Your task to perform on an android device: Search for flights from Tokyo to Seoul Image 0: 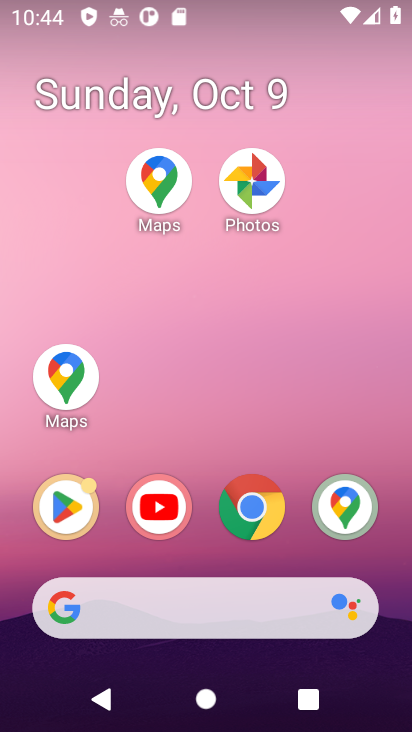
Step 0: drag from (302, 560) to (336, 71)
Your task to perform on an android device: Search for flights from Tokyo to Seoul Image 1: 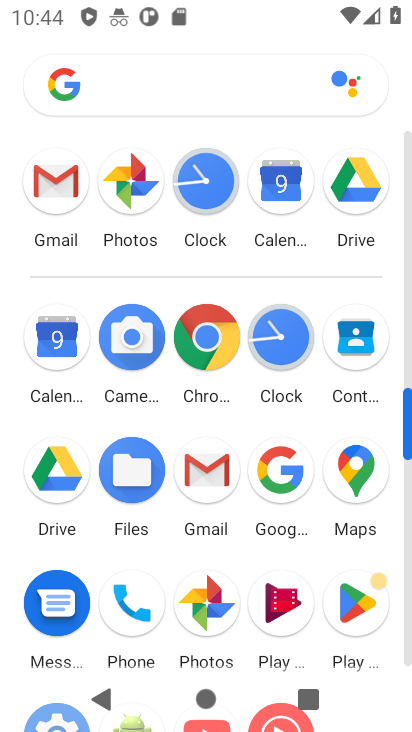
Step 1: click (209, 338)
Your task to perform on an android device: Search for flights from Tokyo to Seoul Image 2: 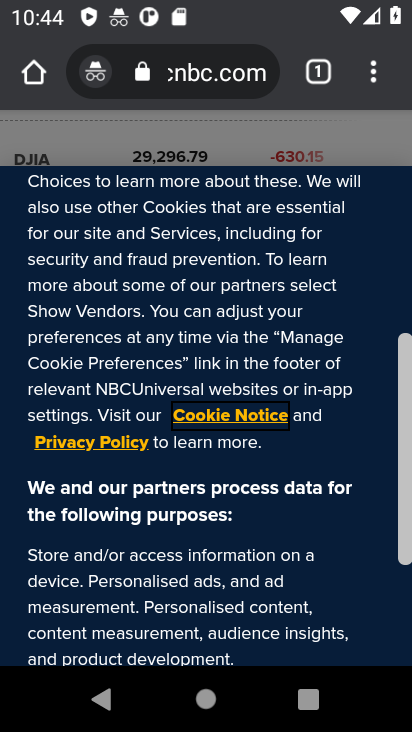
Step 2: click (182, 73)
Your task to perform on an android device: Search for flights from Tokyo to Seoul Image 3: 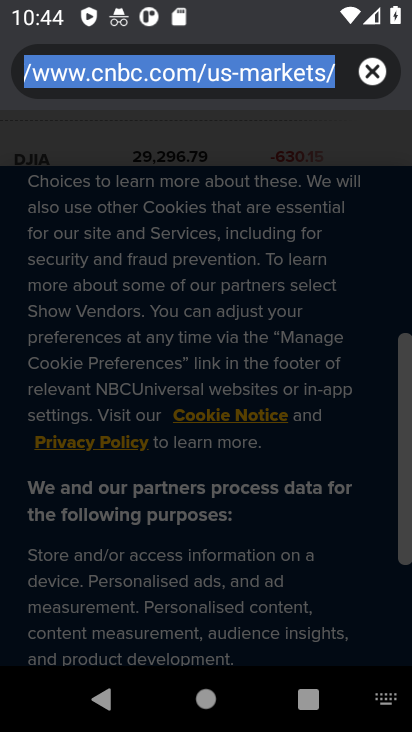
Step 3: type "Search for flights from Tokyo to Seoul"
Your task to perform on an android device: Search for flights from Tokyo to Seoul Image 4: 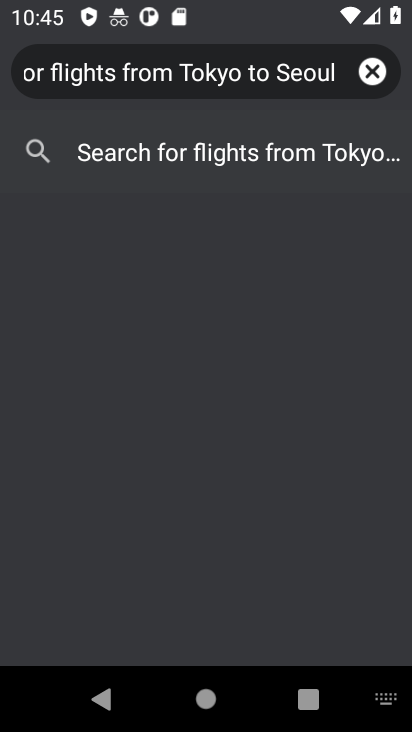
Step 4: press enter
Your task to perform on an android device: Search for flights from Tokyo to Seoul Image 5: 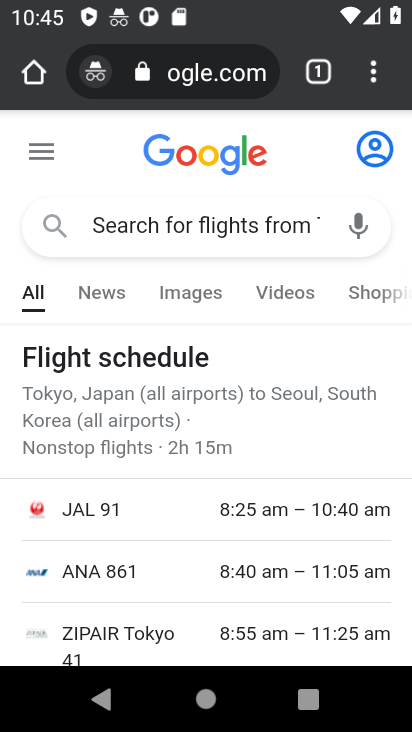
Step 5: task complete